Your task to perform on an android device: change alarm snooze length Image 0: 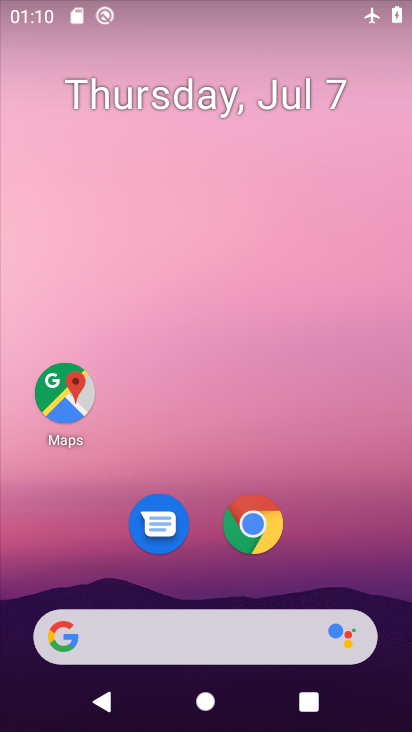
Step 0: drag from (347, 503) to (336, 9)
Your task to perform on an android device: change alarm snooze length Image 1: 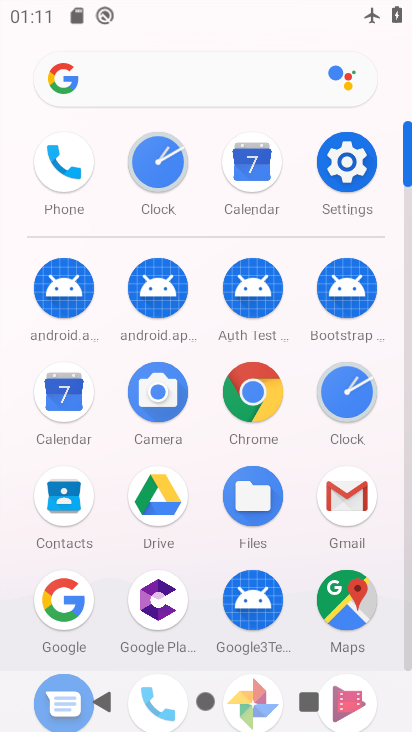
Step 1: click (344, 391)
Your task to perform on an android device: change alarm snooze length Image 2: 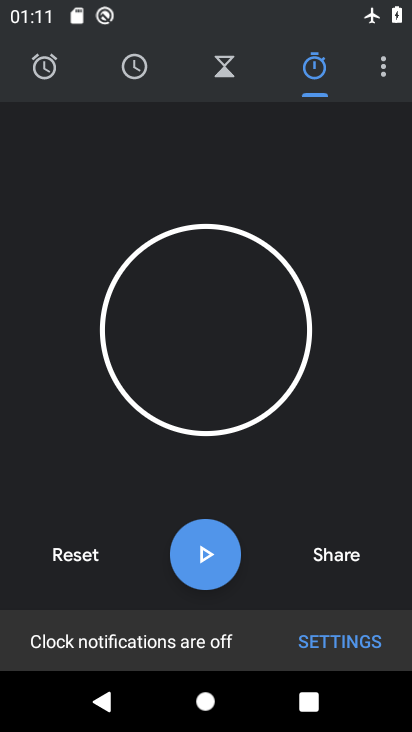
Step 2: click (378, 70)
Your task to perform on an android device: change alarm snooze length Image 3: 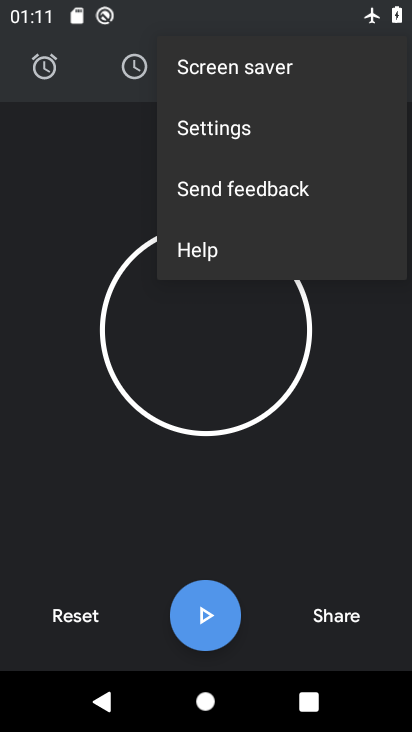
Step 3: click (319, 131)
Your task to perform on an android device: change alarm snooze length Image 4: 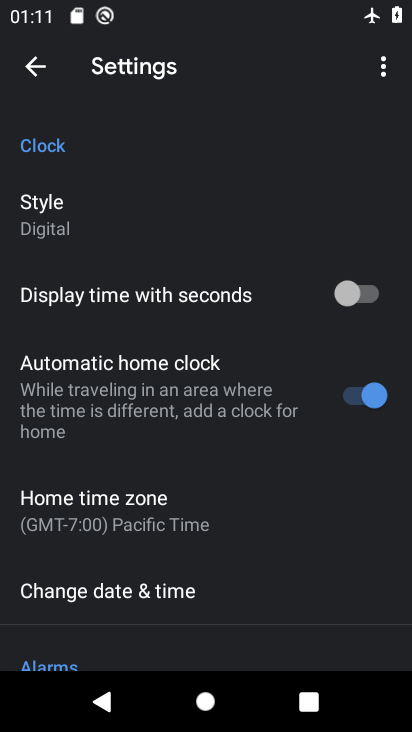
Step 4: drag from (162, 566) to (222, 133)
Your task to perform on an android device: change alarm snooze length Image 5: 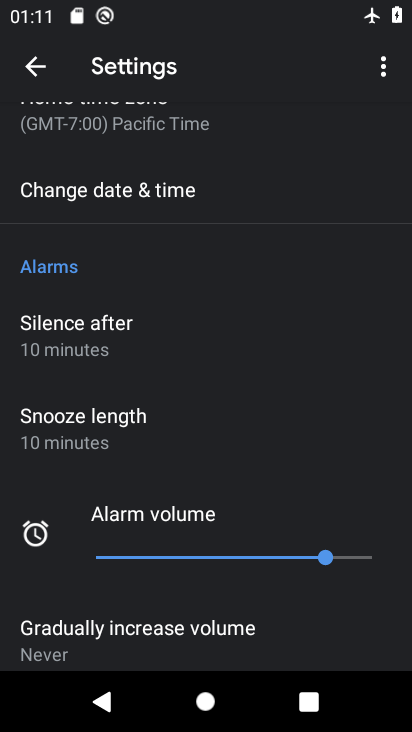
Step 5: click (135, 420)
Your task to perform on an android device: change alarm snooze length Image 6: 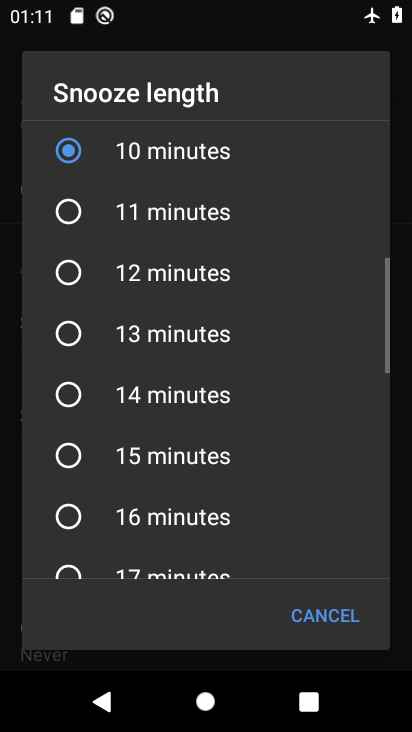
Step 6: click (76, 211)
Your task to perform on an android device: change alarm snooze length Image 7: 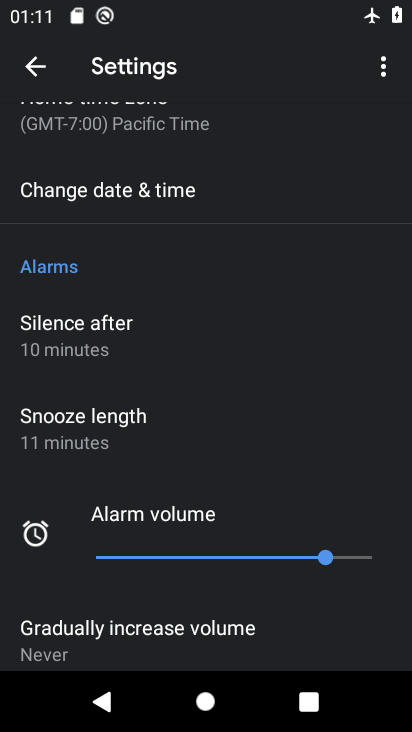
Step 7: task complete